Your task to perform on an android device: Go to Wikipedia Image 0: 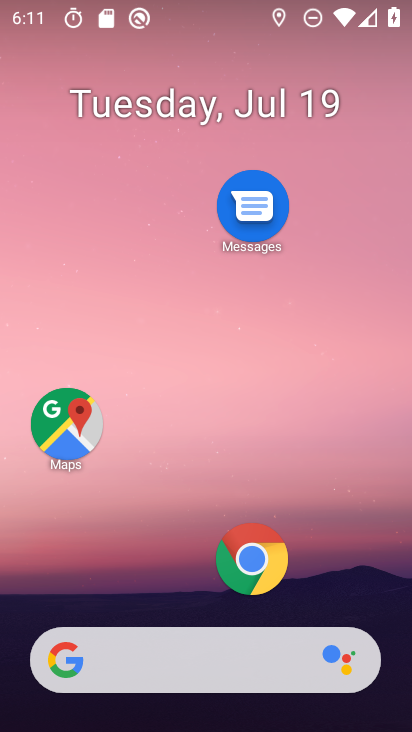
Step 0: click (251, 556)
Your task to perform on an android device: Go to Wikipedia Image 1: 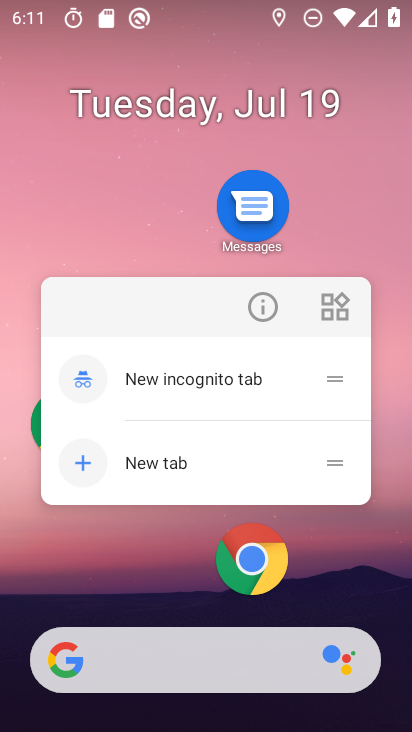
Step 1: click (292, 564)
Your task to perform on an android device: Go to Wikipedia Image 2: 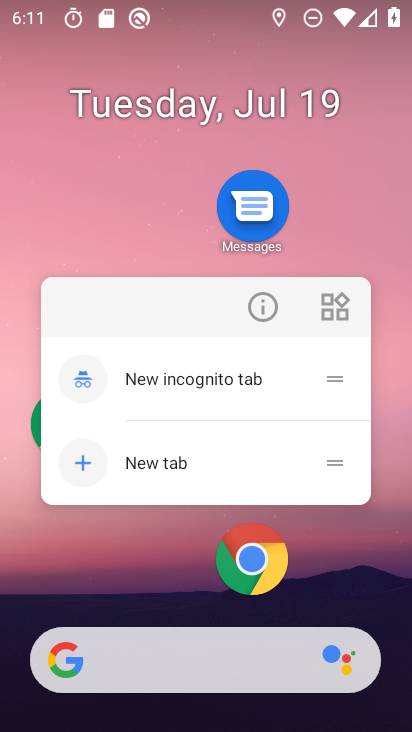
Step 2: click (256, 553)
Your task to perform on an android device: Go to Wikipedia Image 3: 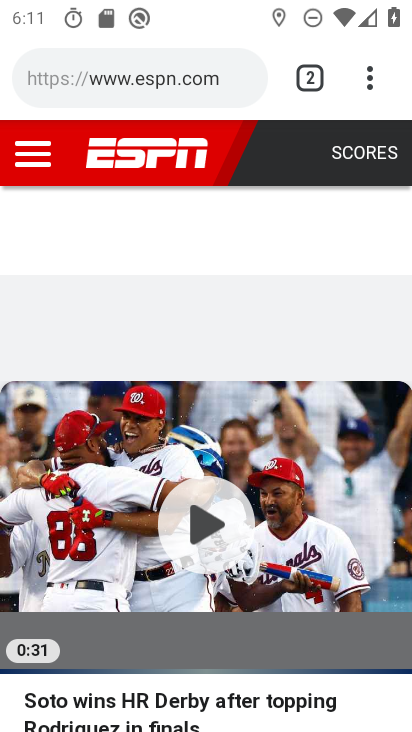
Step 3: click (313, 82)
Your task to perform on an android device: Go to Wikipedia Image 4: 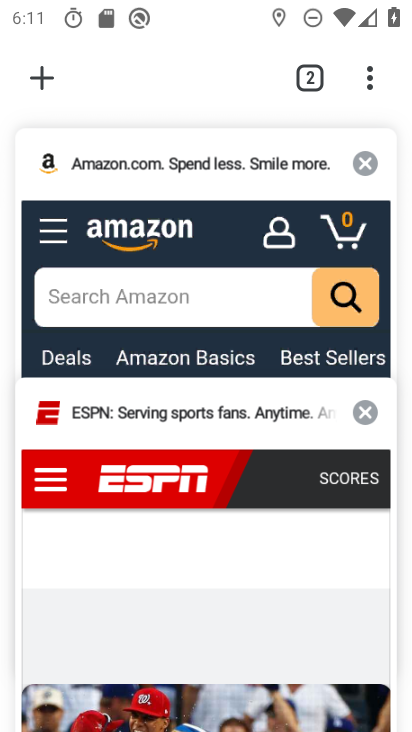
Step 4: click (47, 67)
Your task to perform on an android device: Go to Wikipedia Image 5: 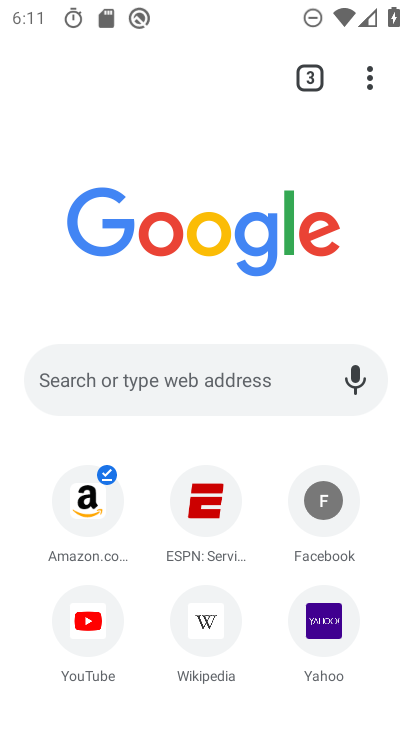
Step 5: click (214, 621)
Your task to perform on an android device: Go to Wikipedia Image 6: 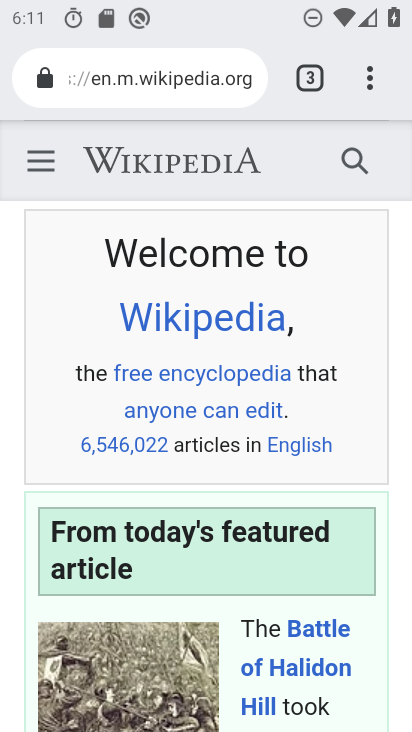
Step 6: task complete